Your task to perform on an android device: clear history in the chrome app Image 0: 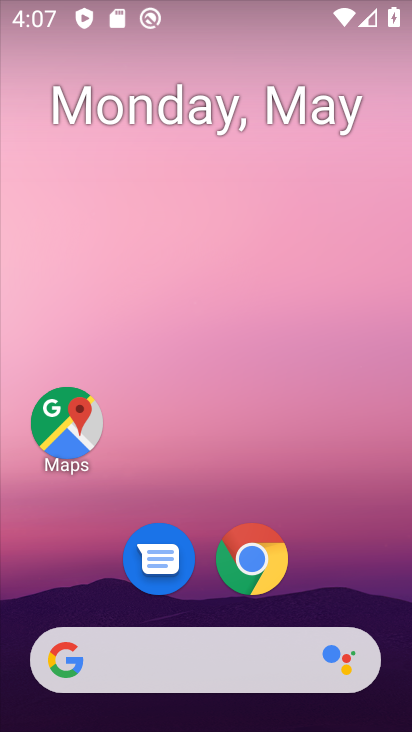
Step 0: drag from (298, 518) to (354, 8)
Your task to perform on an android device: clear history in the chrome app Image 1: 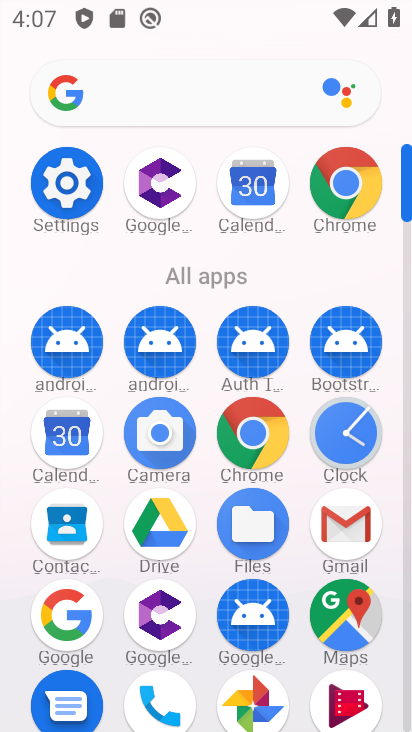
Step 1: click (253, 436)
Your task to perform on an android device: clear history in the chrome app Image 2: 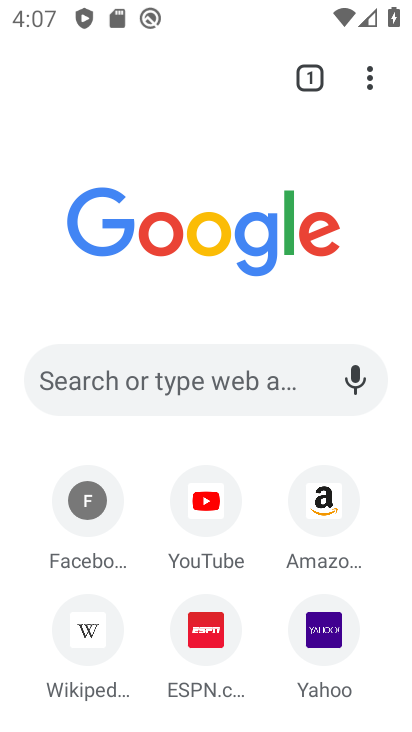
Step 2: drag from (362, 138) to (346, 517)
Your task to perform on an android device: clear history in the chrome app Image 3: 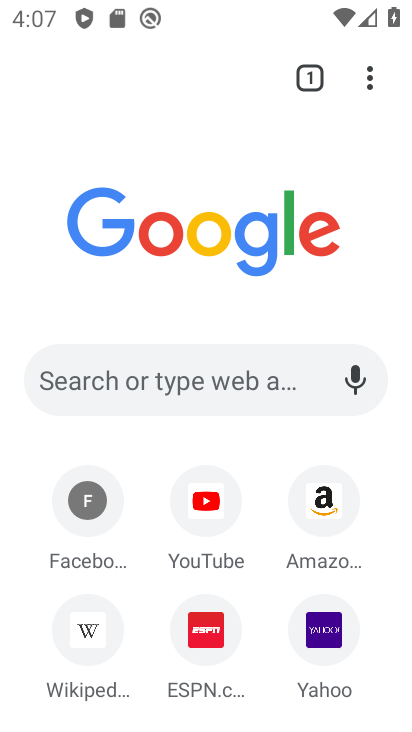
Step 3: click (363, 74)
Your task to perform on an android device: clear history in the chrome app Image 4: 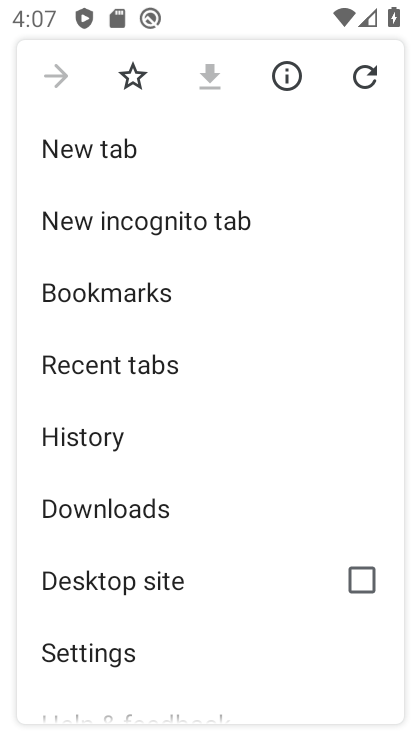
Step 4: click (143, 433)
Your task to perform on an android device: clear history in the chrome app Image 5: 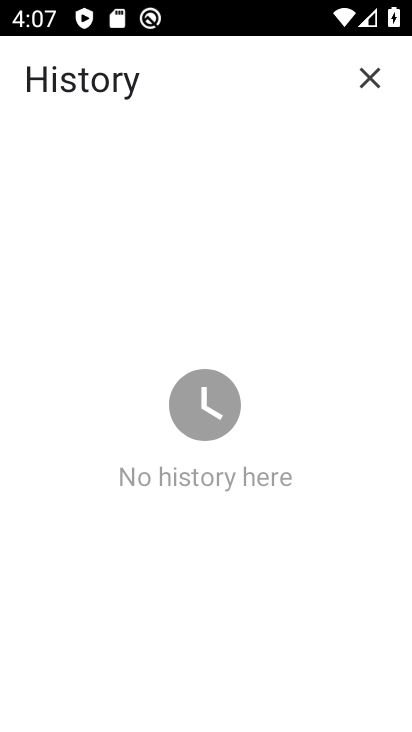
Step 5: task complete